Your task to perform on an android device: Go to sound settings Image 0: 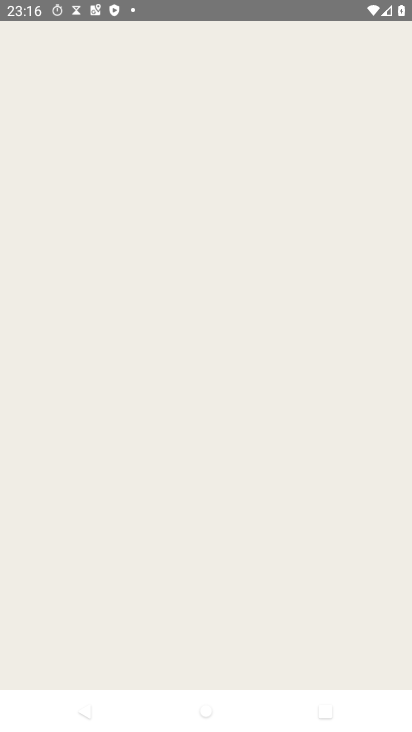
Step 0: press home button
Your task to perform on an android device: Go to sound settings Image 1: 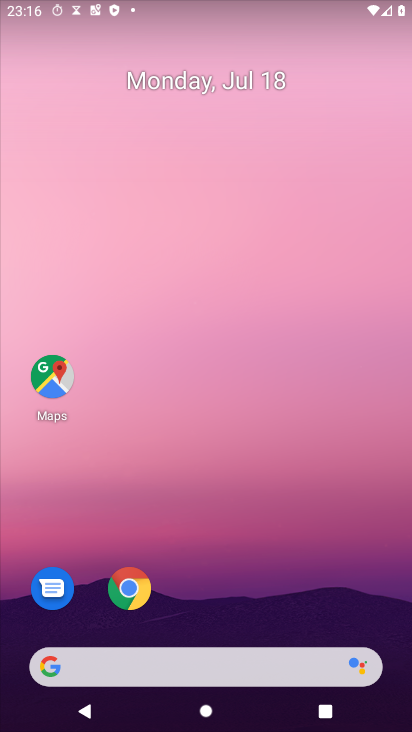
Step 1: drag from (176, 662) to (310, 29)
Your task to perform on an android device: Go to sound settings Image 2: 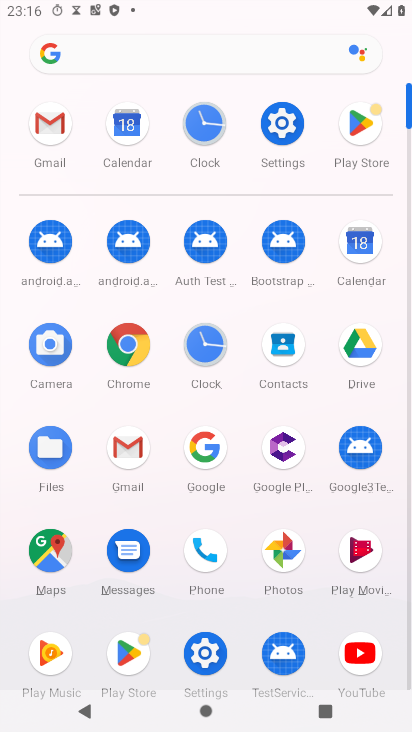
Step 2: click (285, 122)
Your task to perform on an android device: Go to sound settings Image 3: 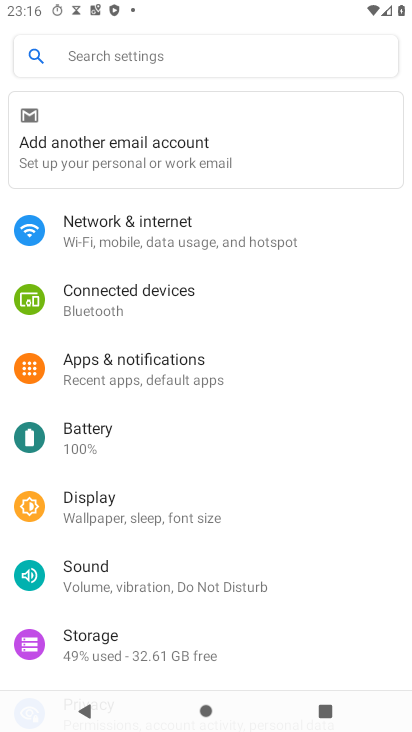
Step 3: click (139, 581)
Your task to perform on an android device: Go to sound settings Image 4: 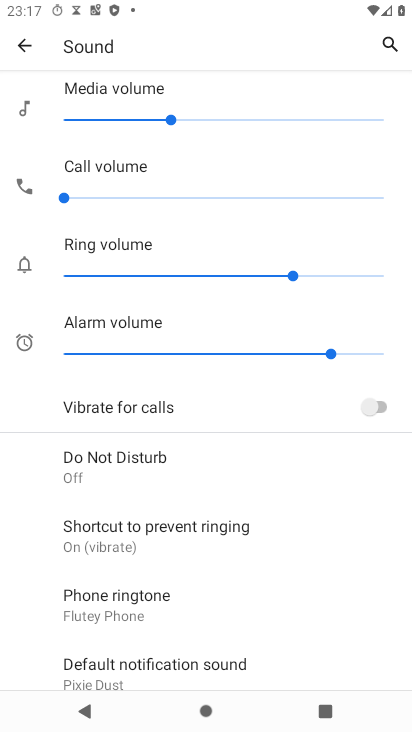
Step 4: task complete